Your task to perform on an android device: Go to CNN.com Image 0: 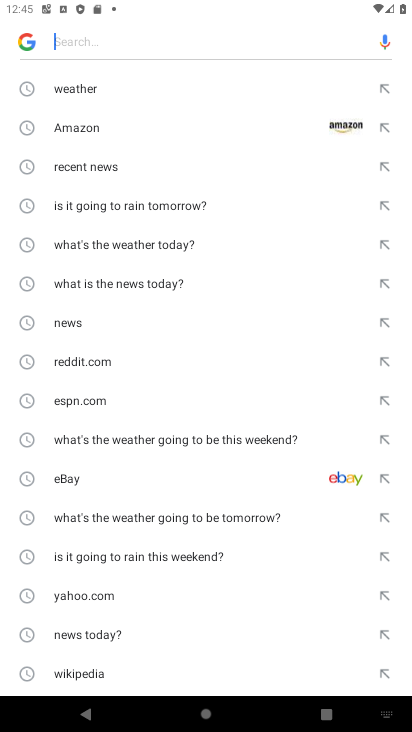
Step 0: task complete